Your task to perform on an android device: Go to eBay Image 0: 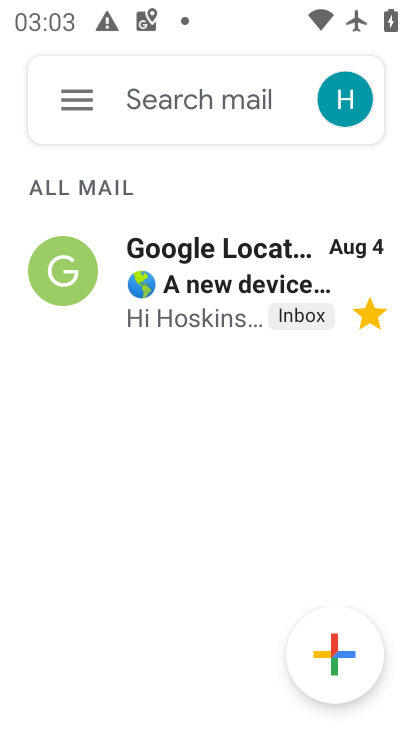
Step 0: task complete